Your task to perform on an android device: all mails in gmail Image 0: 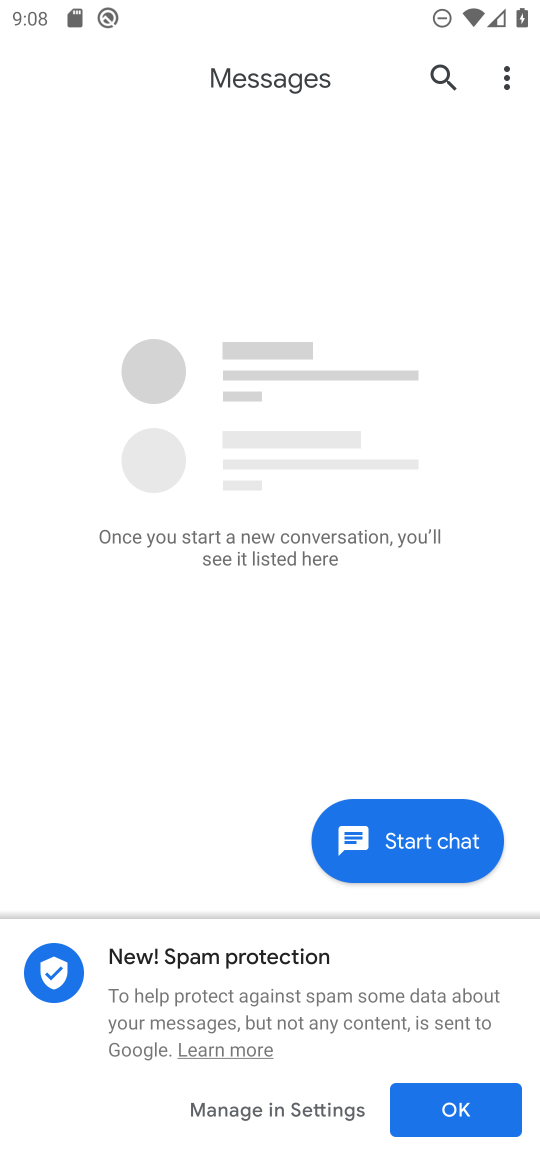
Step 0: press home button
Your task to perform on an android device: all mails in gmail Image 1: 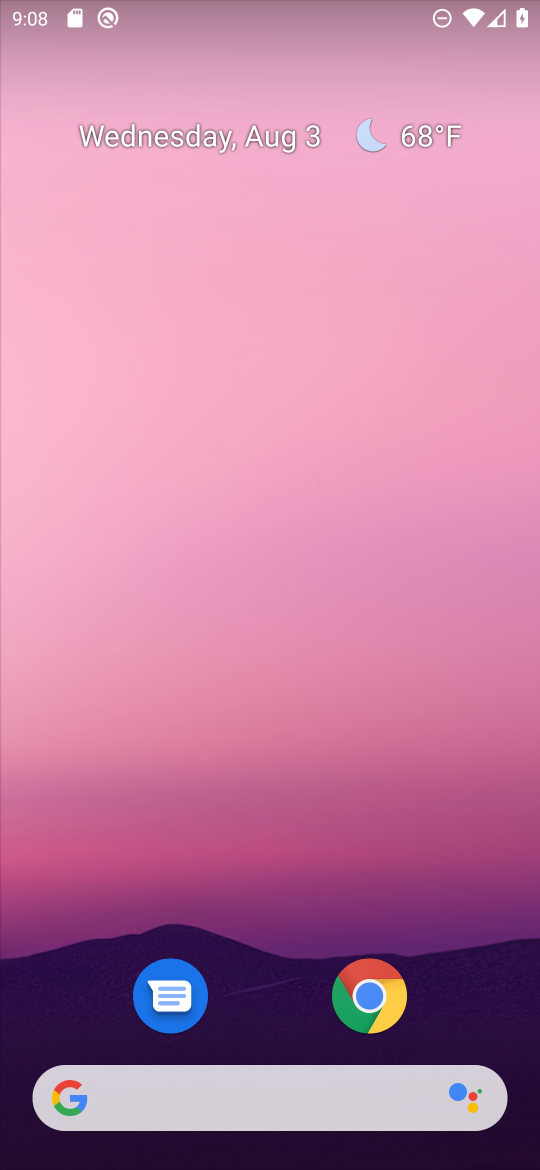
Step 1: drag from (313, 861) to (313, 59)
Your task to perform on an android device: all mails in gmail Image 2: 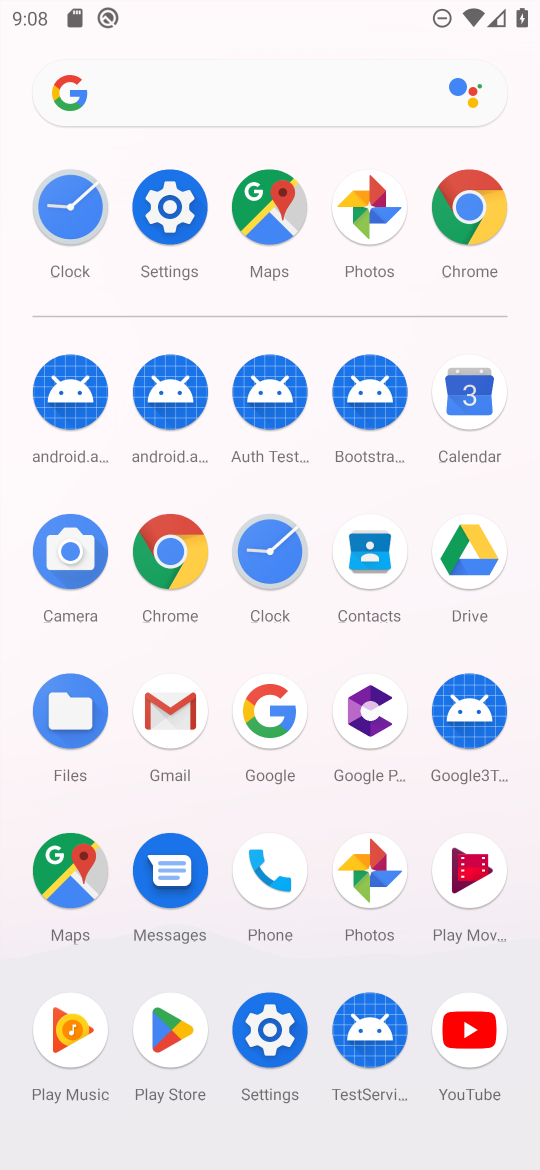
Step 2: click (189, 704)
Your task to perform on an android device: all mails in gmail Image 3: 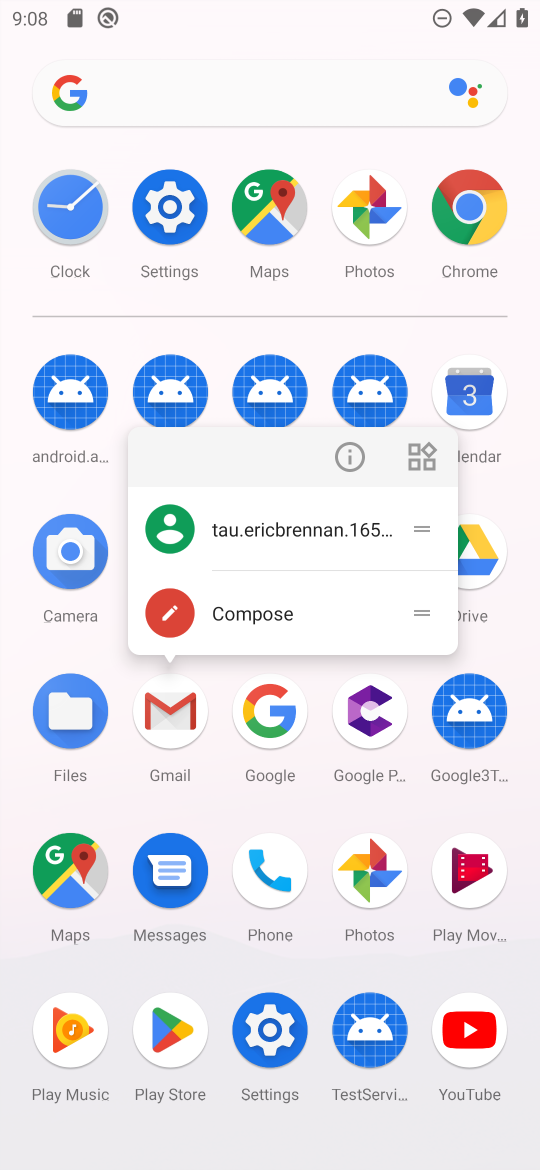
Step 3: click (189, 706)
Your task to perform on an android device: all mails in gmail Image 4: 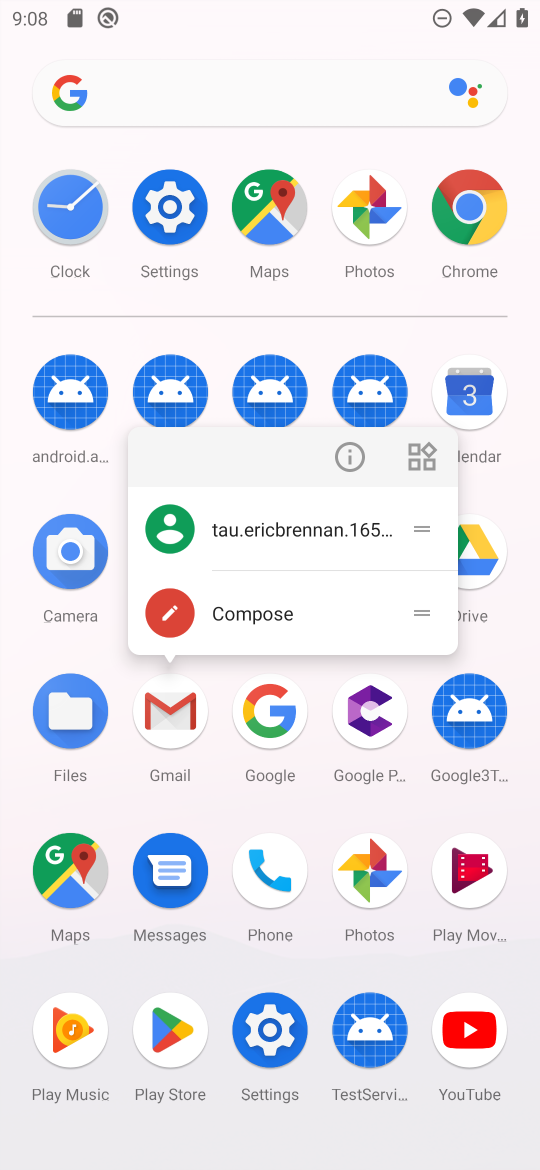
Step 4: click (189, 706)
Your task to perform on an android device: all mails in gmail Image 5: 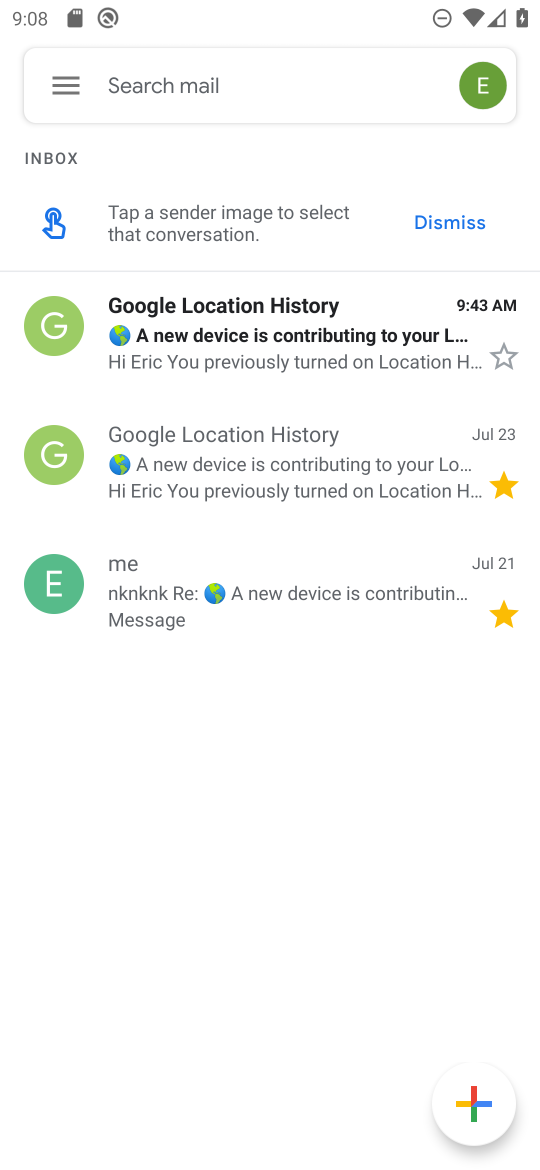
Step 5: click (69, 87)
Your task to perform on an android device: all mails in gmail Image 6: 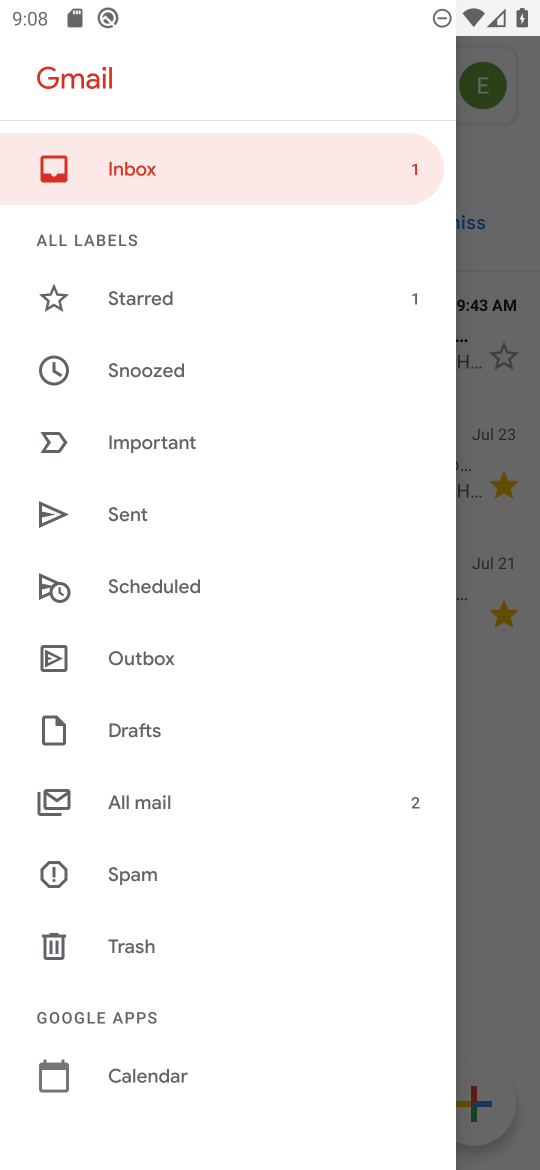
Step 6: click (151, 801)
Your task to perform on an android device: all mails in gmail Image 7: 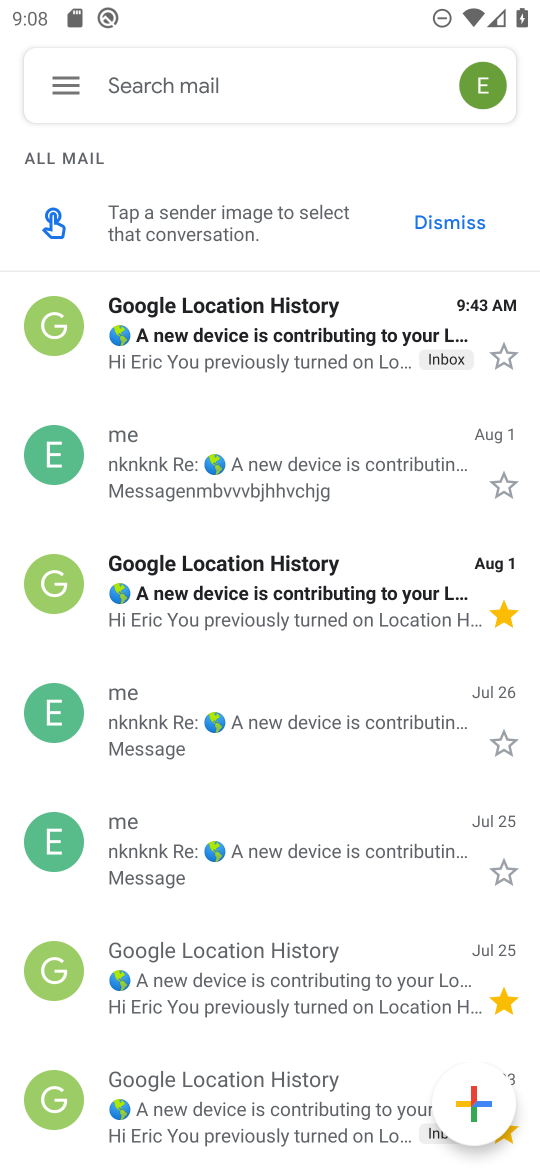
Step 7: task complete